Your task to perform on an android device: change notification settings in the gmail app Image 0: 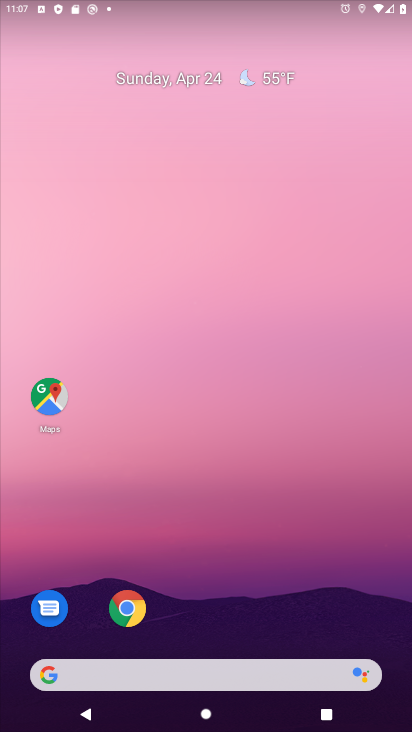
Step 0: drag from (390, 620) to (319, 35)
Your task to perform on an android device: change notification settings in the gmail app Image 1: 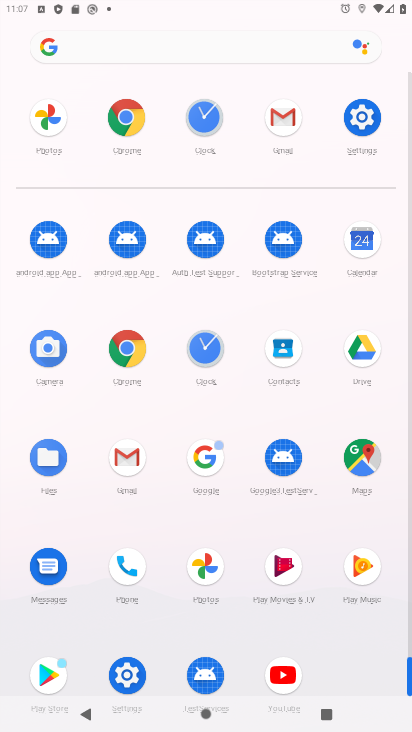
Step 1: click (124, 456)
Your task to perform on an android device: change notification settings in the gmail app Image 2: 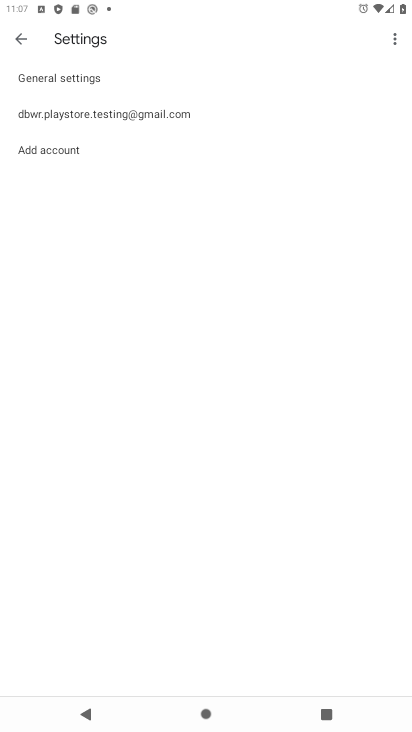
Step 2: click (105, 115)
Your task to perform on an android device: change notification settings in the gmail app Image 3: 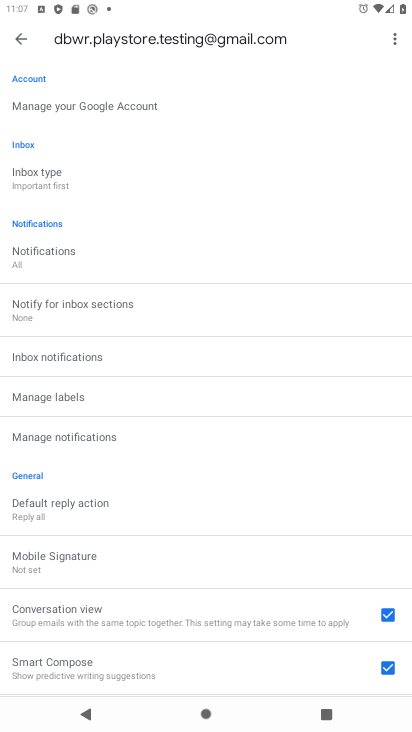
Step 3: click (80, 436)
Your task to perform on an android device: change notification settings in the gmail app Image 4: 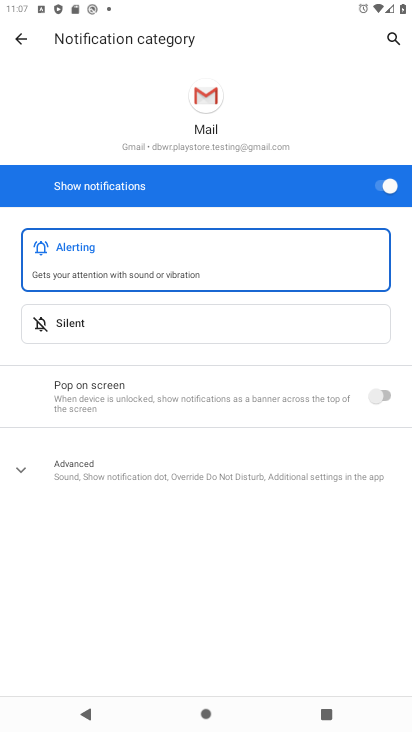
Step 4: click (377, 174)
Your task to perform on an android device: change notification settings in the gmail app Image 5: 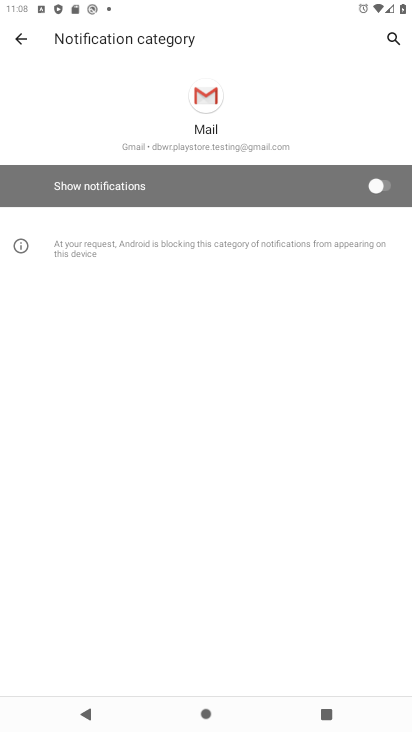
Step 5: task complete